Your task to perform on an android device: open app "Gboard" Image 0: 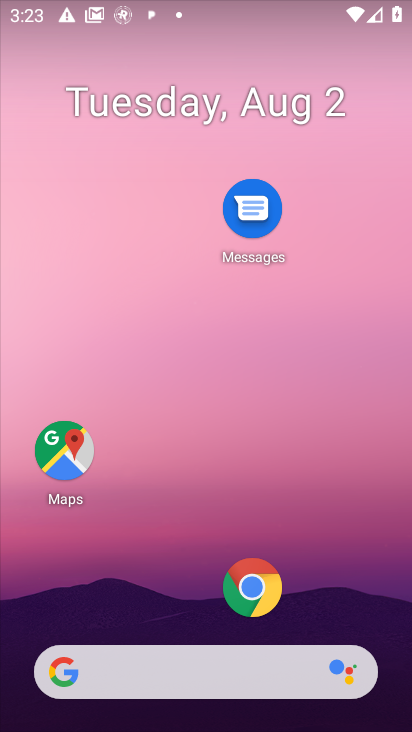
Step 0: click (234, 238)
Your task to perform on an android device: open app "Gboard" Image 1: 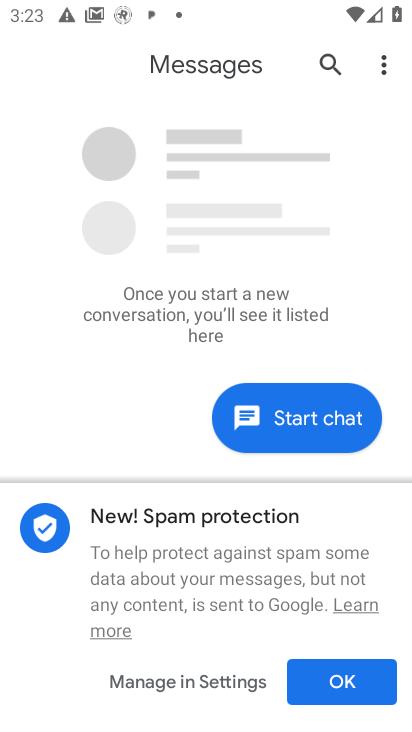
Step 1: press home button
Your task to perform on an android device: open app "Gboard" Image 2: 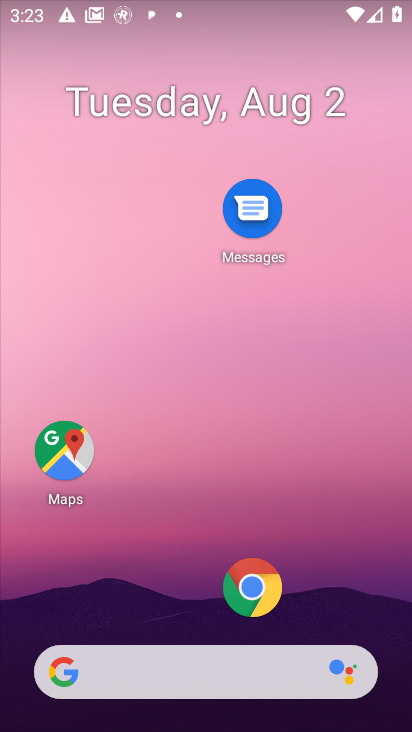
Step 2: drag from (181, 587) to (230, 207)
Your task to perform on an android device: open app "Gboard" Image 3: 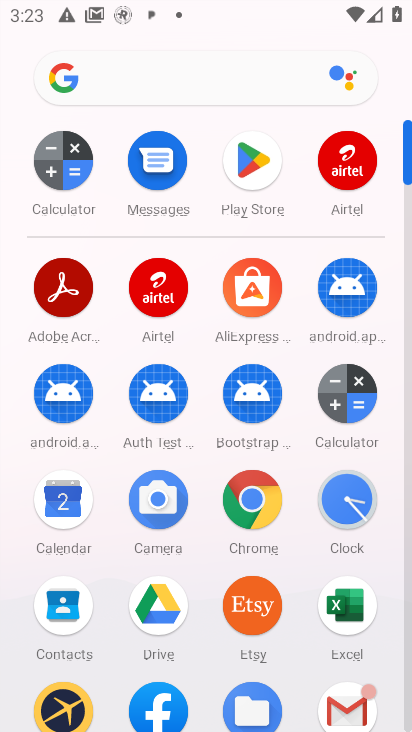
Step 3: click (276, 158)
Your task to perform on an android device: open app "Gboard" Image 4: 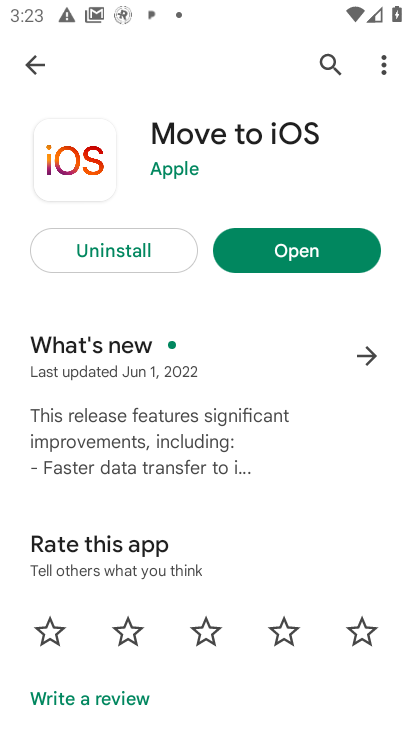
Step 4: click (323, 57)
Your task to perform on an android device: open app "Gboard" Image 5: 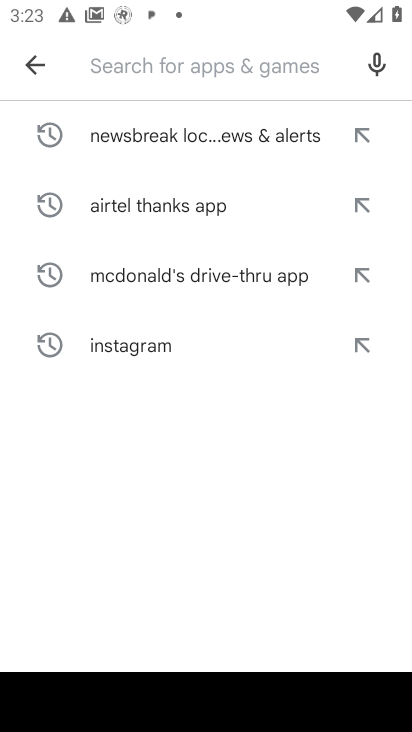
Step 5: type "Gboard"
Your task to perform on an android device: open app "Gboard" Image 6: 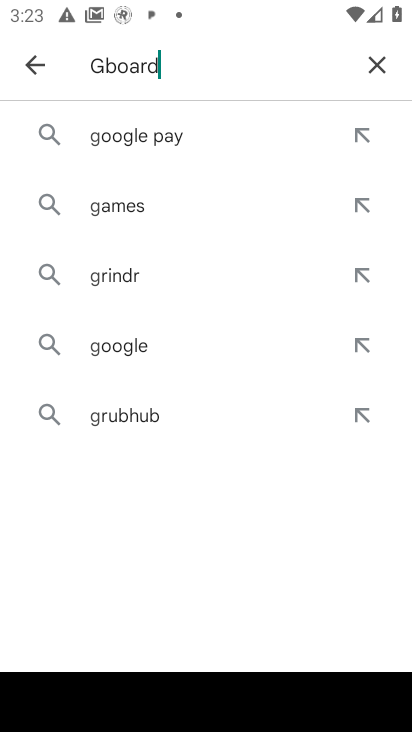
Step 6: type ""
Your task to perform on an android device: open app "Gboard" Image 7: 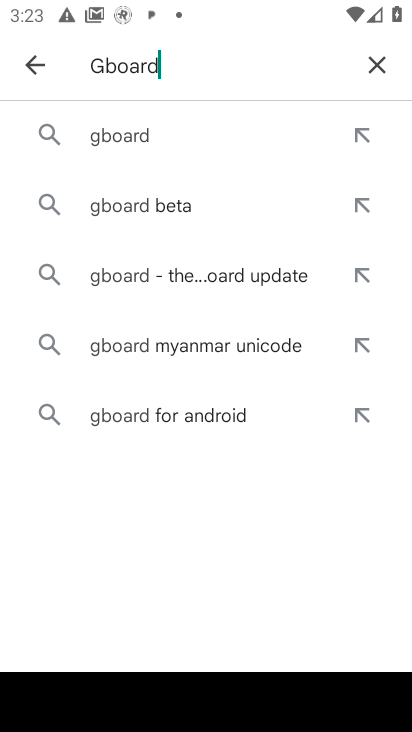
Step 7: click (141, 136)
Your task to perform on an android device: open app "Gboard" Image 8: 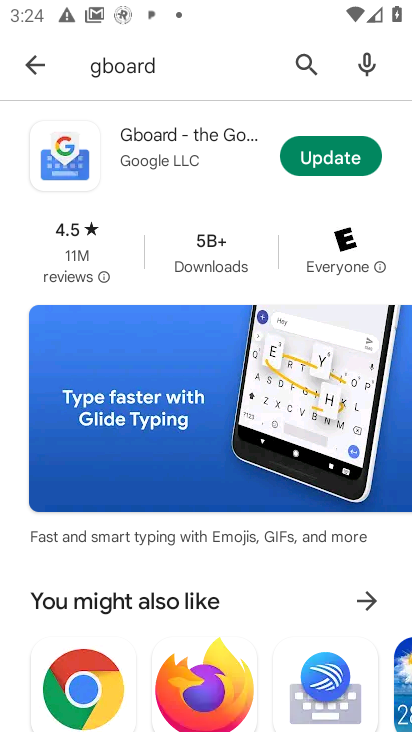
Step 8: click (153, 145)
Your task to perform on an android device: open app "Gboard" Image 9: 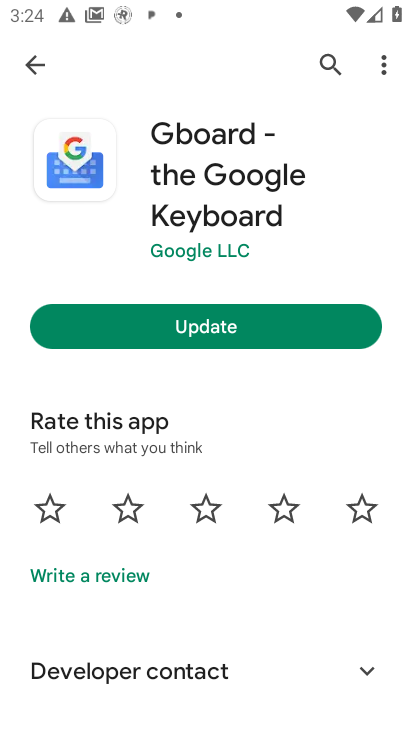
Step 9: click (206, 321)
Your task to perform on an android device: open app "Gboard" Image 10: 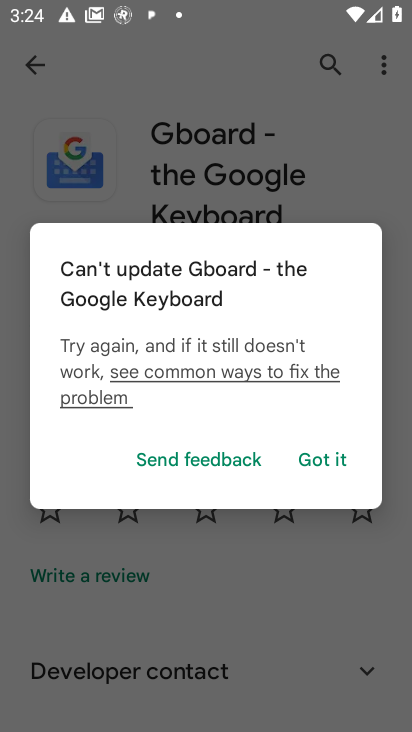
Step 10: click (306, 455)
Your task to perform on an android device: open app "Gboard" Image 11: 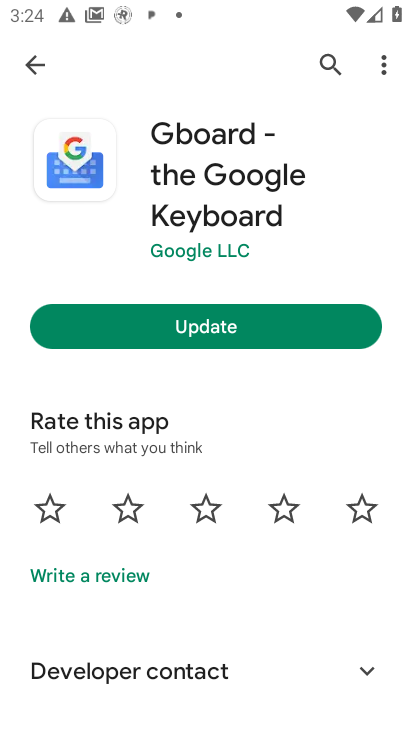
Step 11: task complete